Your task to perform on an android device: see tabs open on other devices in the chrome app Image 0: 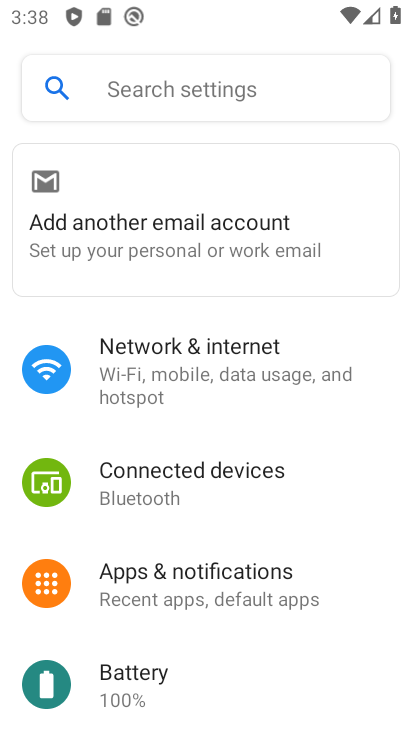
Step 0: press home button
Your task to perform on an android device: see tabs open on other devices in the chrome app Image 1: 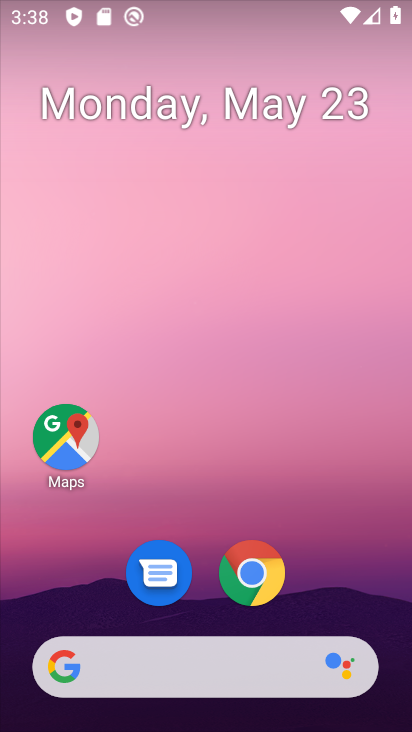
Step 1: click (256, 569)
Your task to perform on an android device: see tabs open on other devices in the chrome app Image 2: 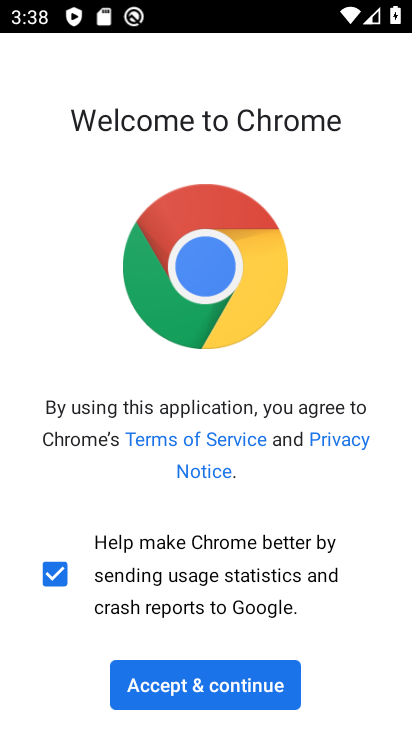
Step 2: click (207, 685)
Your task to perform on an android device: see tabs open on other devices in the chrome app Image 3: 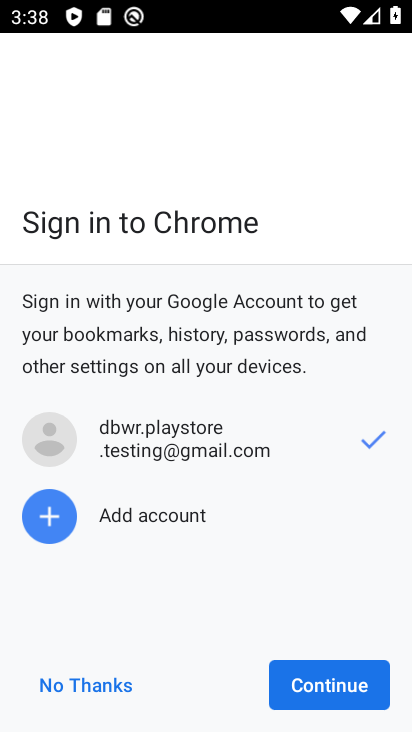
Step 3: click (332, 687)
Your task to perform on an android device: see tabs open on other devices in the chrome app Image 4: 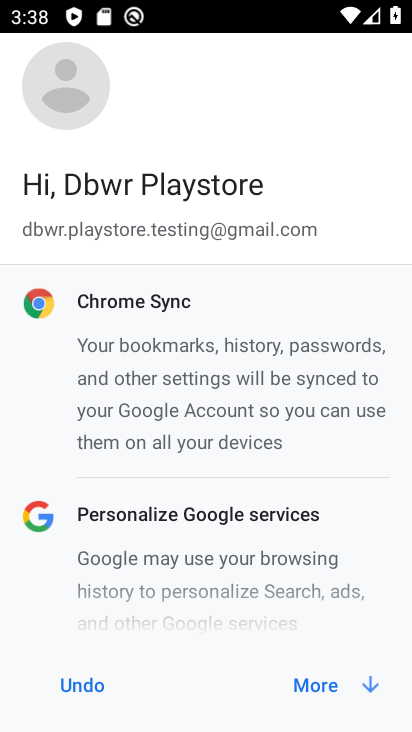
Step 4: click (332, 687)
Your task to perform on an android device: see tabs open on other devices in the chrome app Image 5: 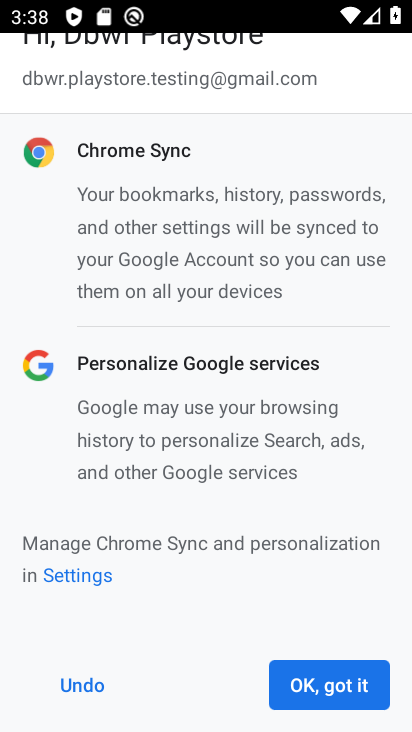
Step 5: click (337, 684)
Your task to perform on an android device: see tabs open on other devices in the chrome app Image 6: 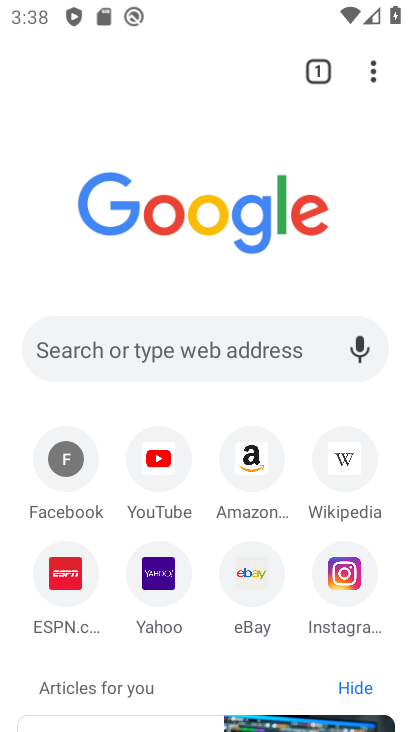
Step 6: click (374, 74)
Your task to perform on an android device: see tabs open on other devices in the chrome app Image 7: 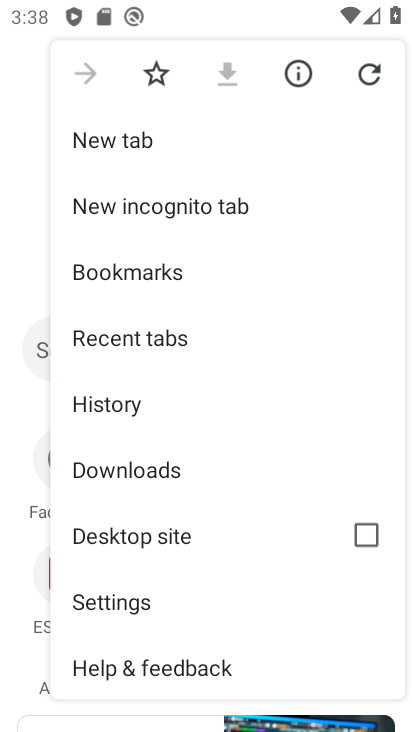
Step 7: click (122, 340)
Your task to perform on an android device: see tabs open on other devices in the chrome app Image 8: 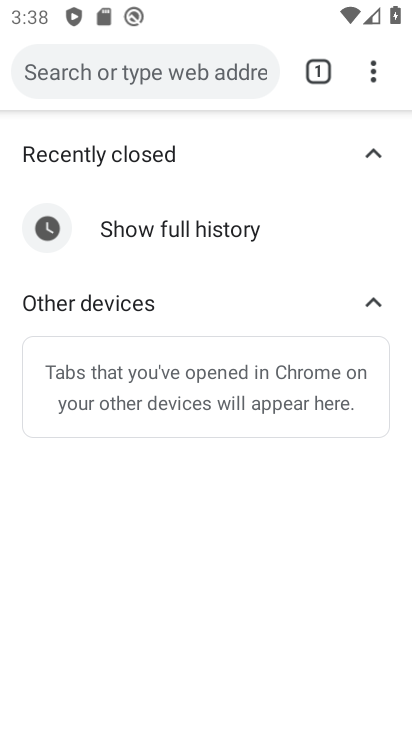
Step 8: task complete